Your task to perform on an android device: Open battery settings Image 0: 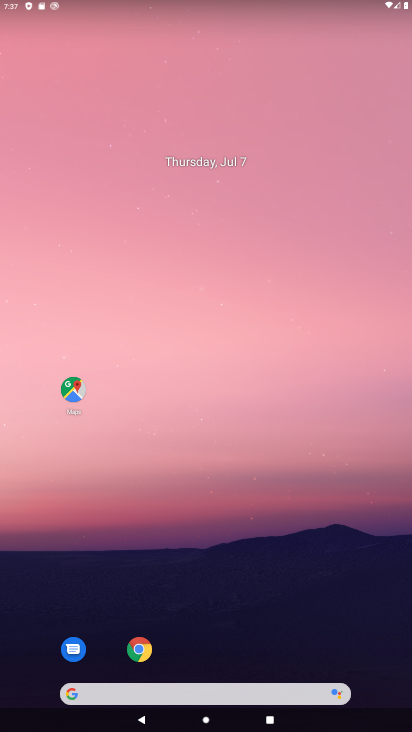
Step 0: drag from (235, 544) to (308, 180)
Your task to perform on an android device: Open battery settings Image 1: 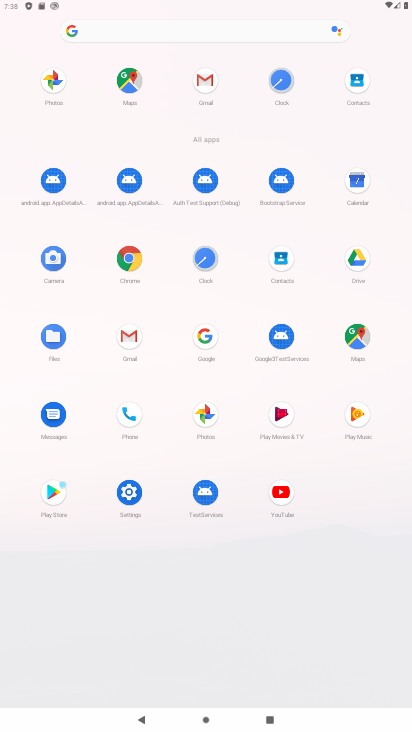
Step 1: click (130, 497)
Your task to perform on an android device: Open battery settings Image 2: 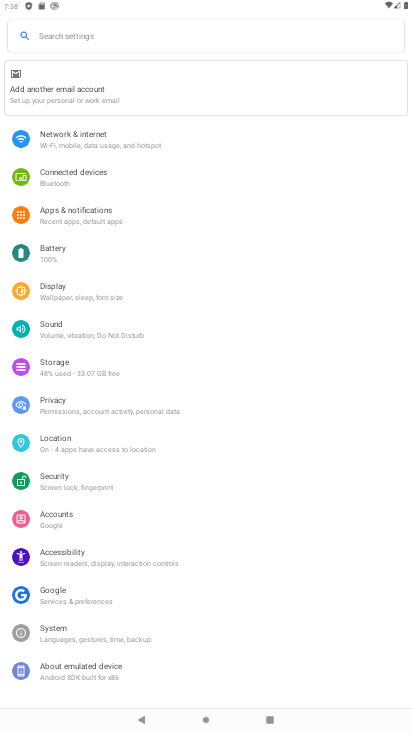
Step 2: click (98, 246)
Your task to perform on an android device: Open battery settings Image 3: 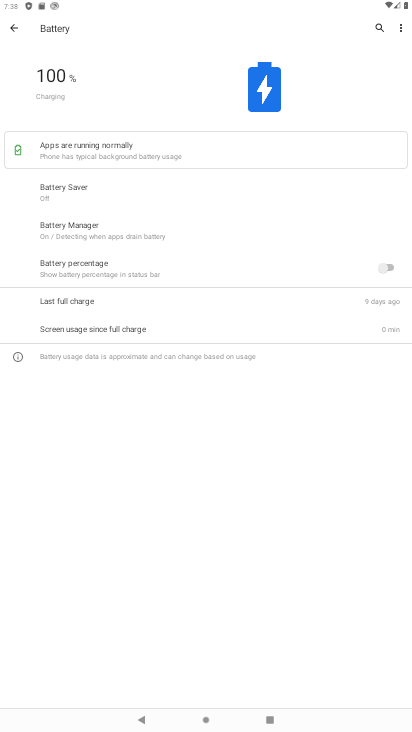
Step 3: task complete